Your task to perform on an android device: Go to Wikipedia Image 0: 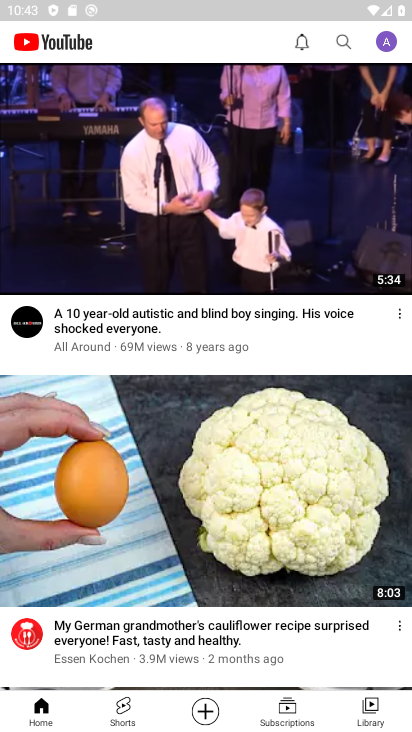
Step 0: press home button
Your task to perform on an android device: Go to Wikipedia Image 1: 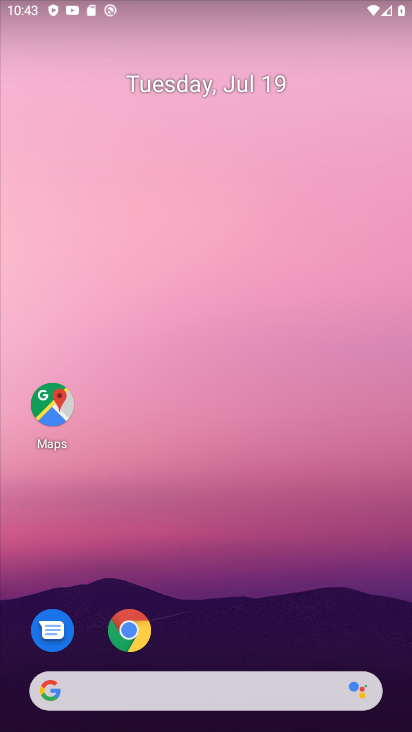
Step 1: drag from (167, 662) to (167, 237)
Your task to perform on an android device: Go to Wikipedia Image 2: 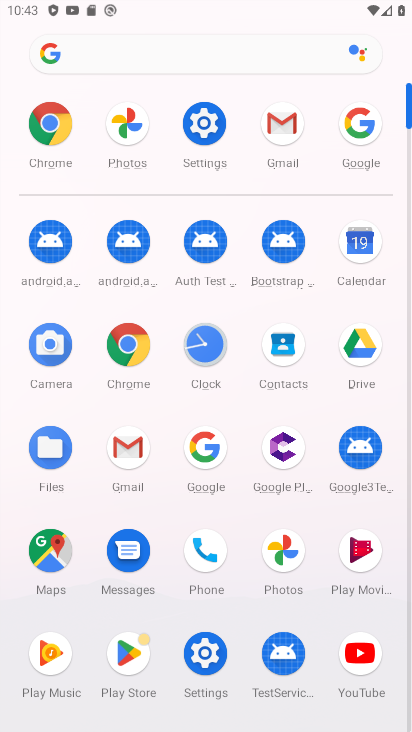
Step 2: click (128, 346)
Your task to perform on an android device: Go to Wikipedia Image 3: 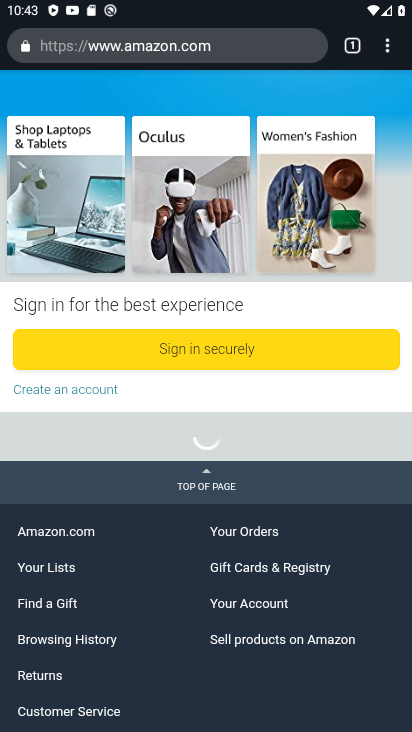
Step 3: click (348, 58)
Your task to perform on an android device: Go to Wikipedia Image 4: 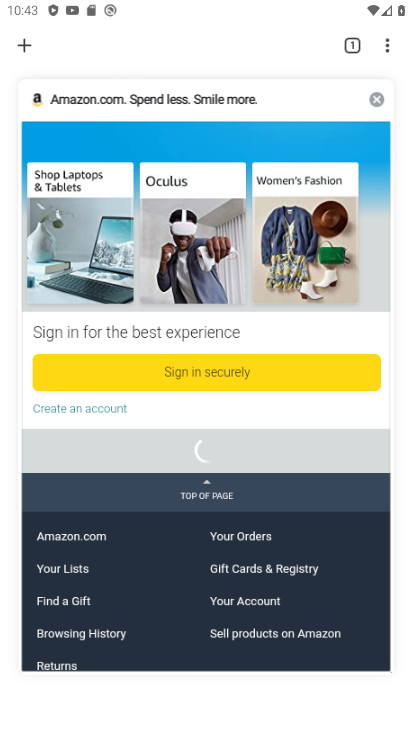
Step 4: click (24, 45)
Your task to perform on an android device: Go to Wikipedia Image 5: 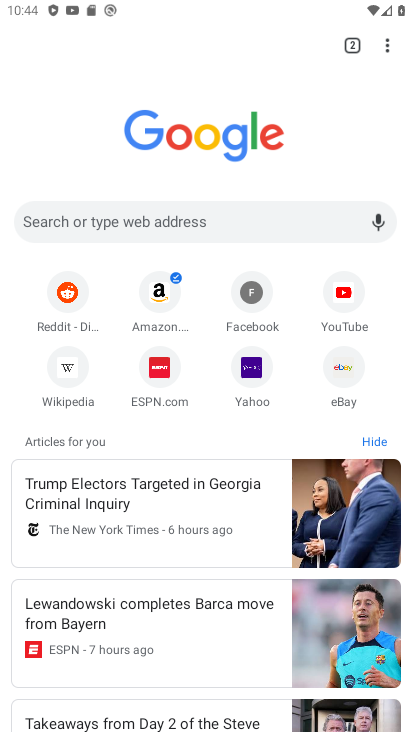
Step 5: click (64, 371)
Your task to perform on an android device: Go to Wikipedia Image 6: 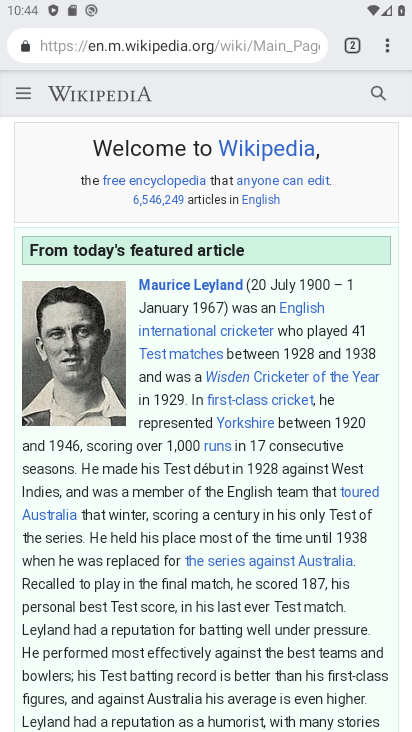
Step 6: task complete